Your task to perform on an android device: toggle improve location accuracy Image 0: 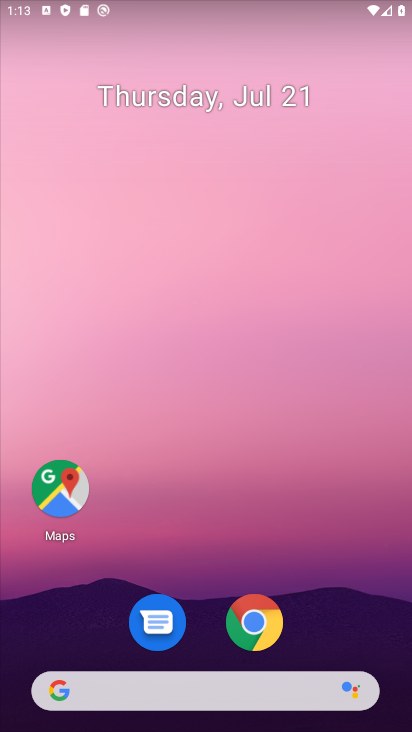
Step 0: drag from (294, 616) to (397, 136)
Your task to perform on an android device: toggle improve location accuracy Image 1: 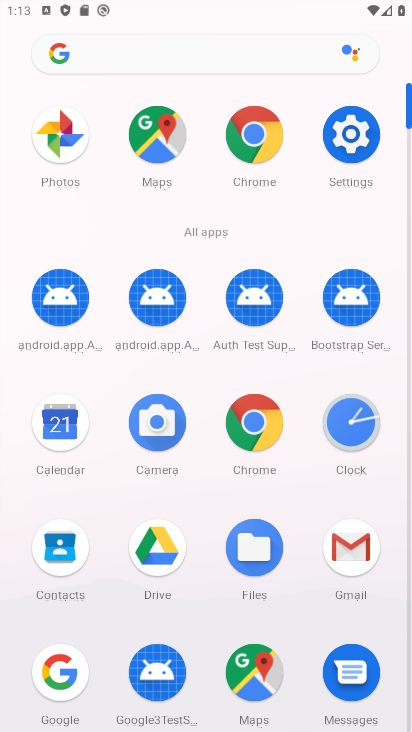
Step 1: click (349, 136)
Your task to perform on an android device: toggle improve location accuracy Image 2: 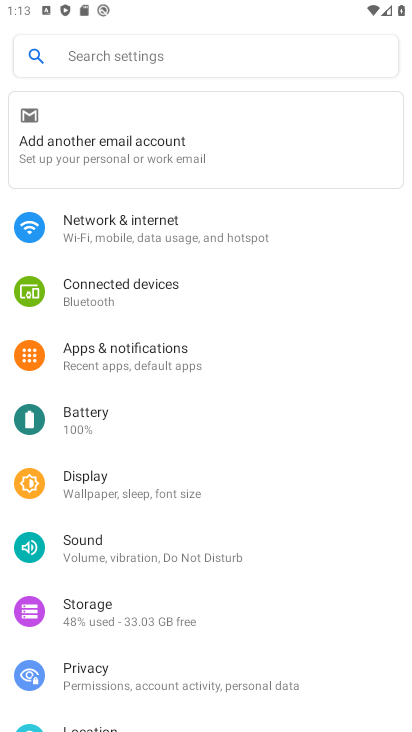
Step 2: click (156, 72)
Your task to perform on an android device: toggle improve location accuracy Image 3: 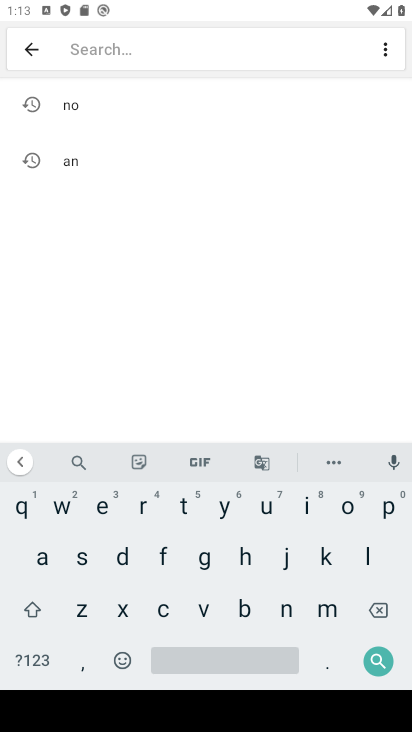
Step 3: click (37, 565)
Your task to perform on an android device: toggle improve location accuracy Image 4: 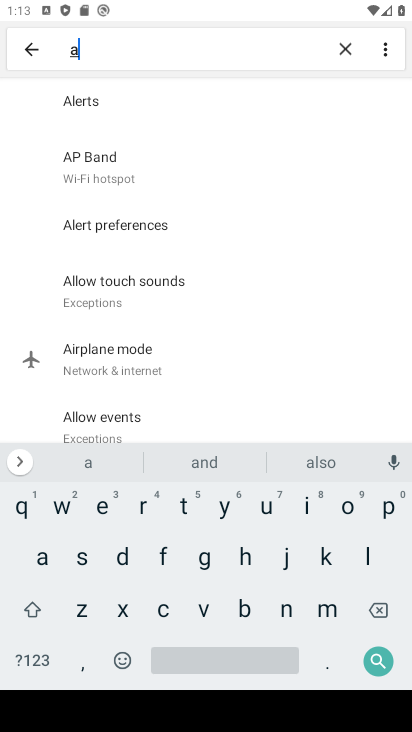
Step 4: click (163, 615)
Your task to perform on an android device: toggle improve location accuracy Image 5: 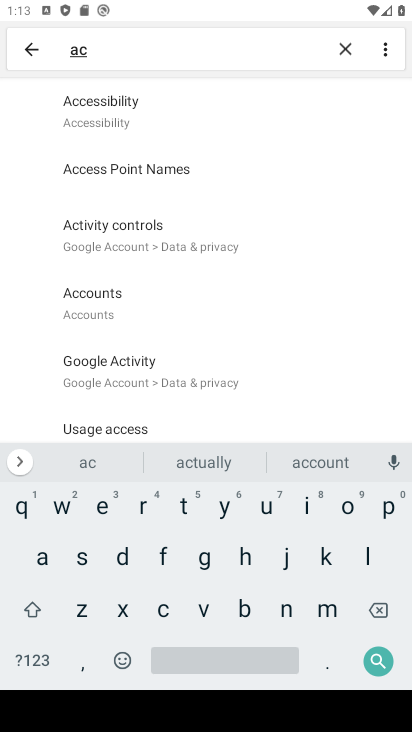
Step 5: click (350, 46)
Your task to perform on an android device: toggle improve location accuracy Image 6: 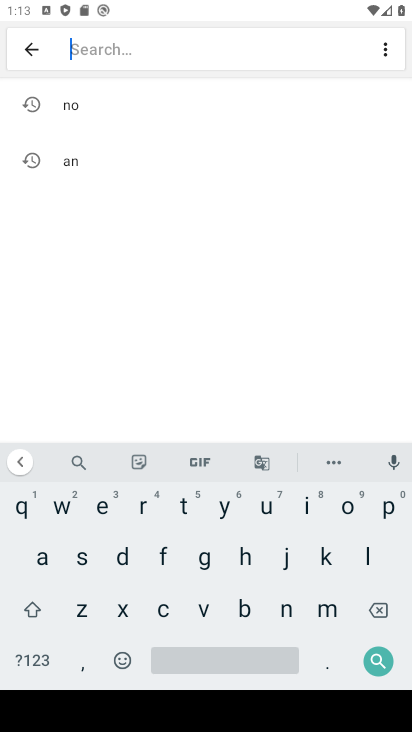
Step 6: click (364, 559)
Your task to perform on an android device: toggle improve location accuracy Image 7: 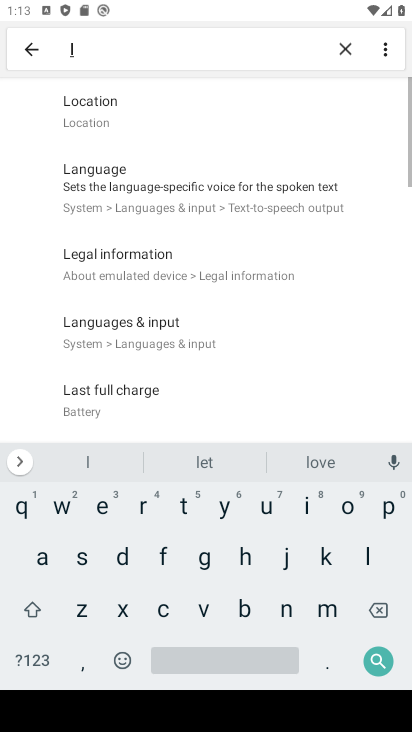
Step 7: click (344, 498)
Your task to perform on an android device: toggle improve location accuracy Image 8: 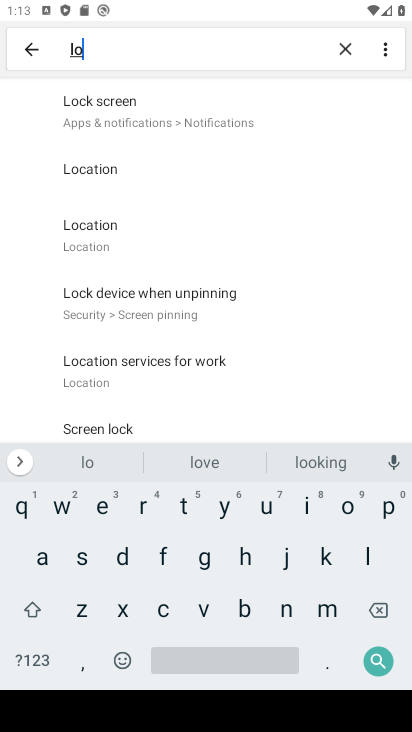
Step 8: click (74, 234)
Your task to perform on an android device: toggle improve location accuracy Image 9: 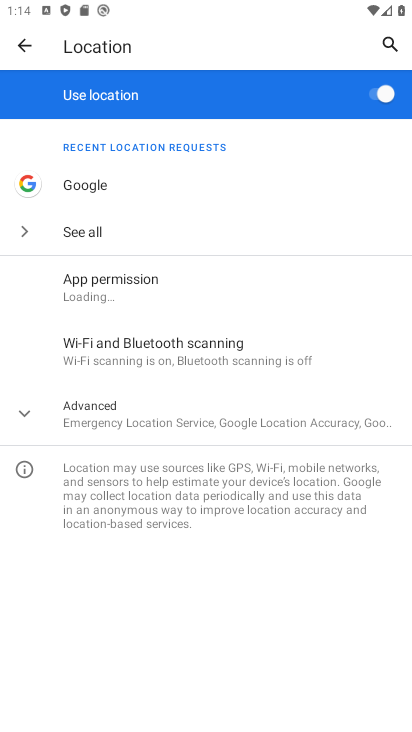
Step 9: click (84, 403)
Your task to perform on an android device: toggle improve location accuracy Image 10: 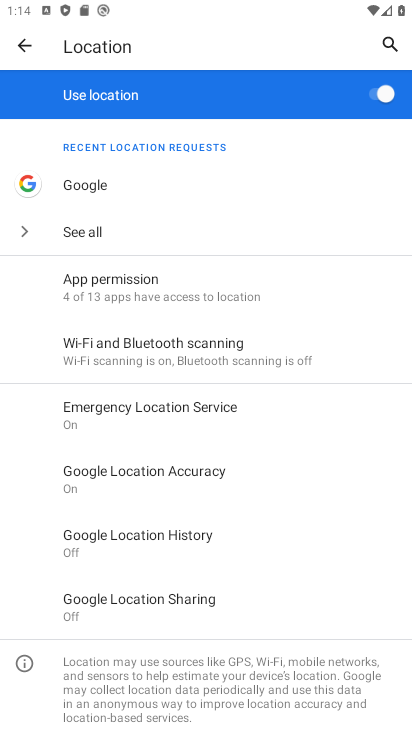
Step 10: click (176, 480)
Your task to perform on an android device: toggle improve location accuracy Image 11: 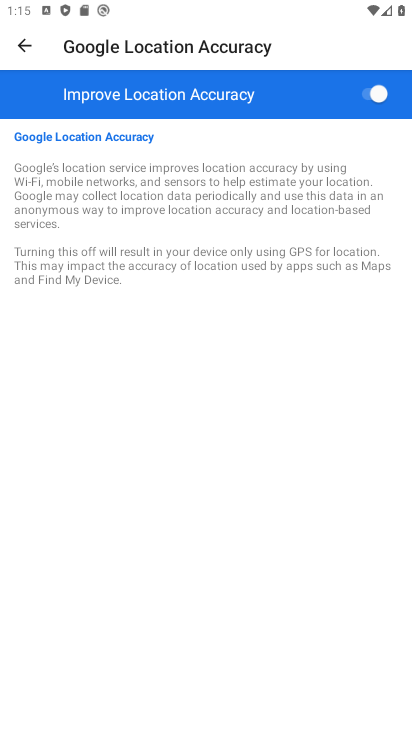
Step 11: task complete